Your task to perform on an android device: clear all cookies in the chrome app Image 0: 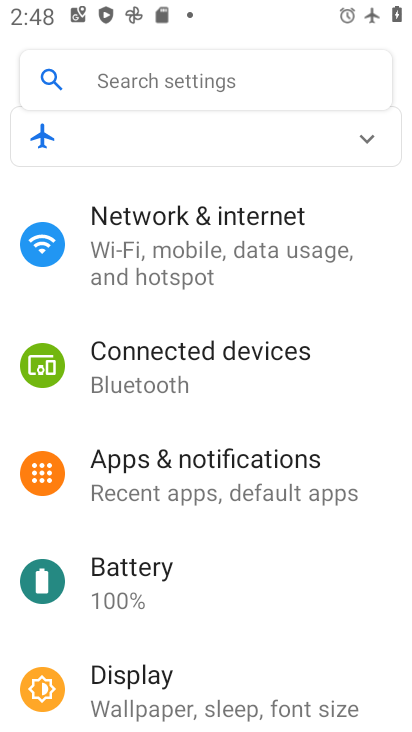
Step 0: drag from (277, 546) to (279, 317)
Your task to perform on an android device: clear all cookies in the chrome app Image 1: 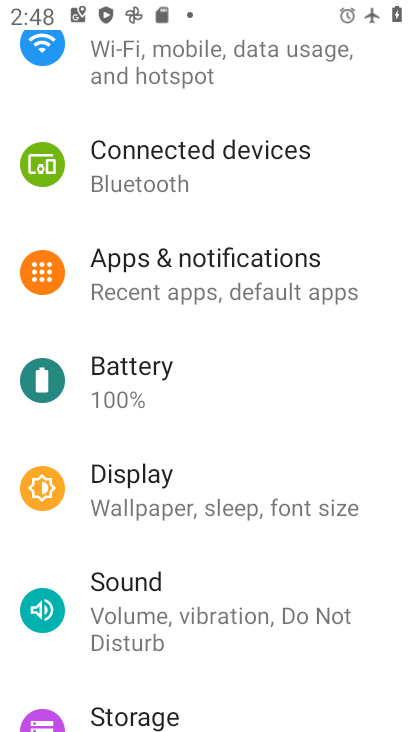
Step 1: drag from (184, 696) to (267, 353)
Your task to perform on an android device: clear all cookies in the chrome app Image 2: 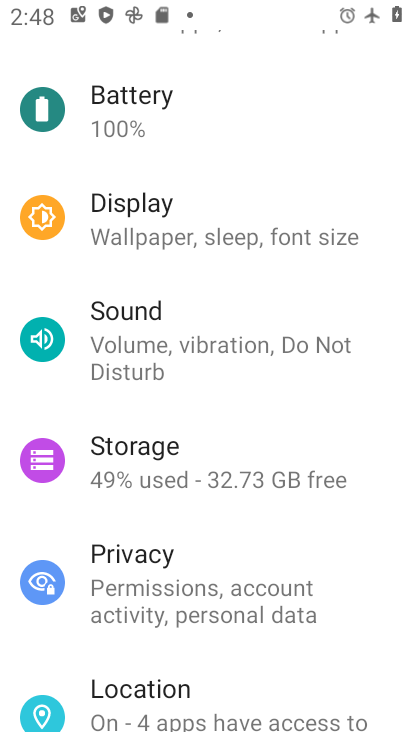
Step 2: drag from (188, 659) to (231, 400)
Your task to perform on an android device: clear all cookies in the chrome app Image 3: 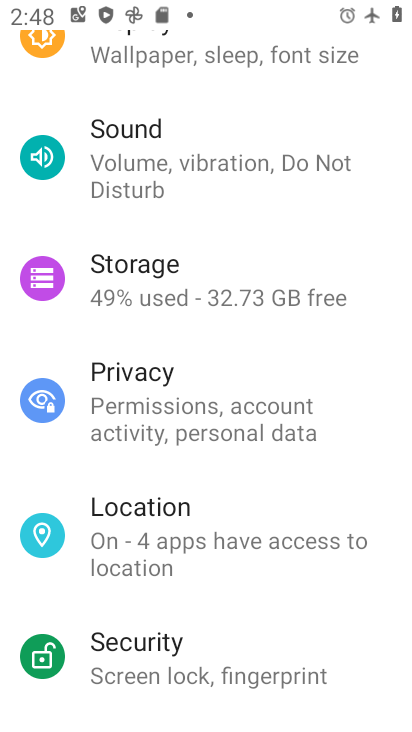
Step 3: press home button
Your task to perform on an android device: clear all cookies in the chrome app Image 4: 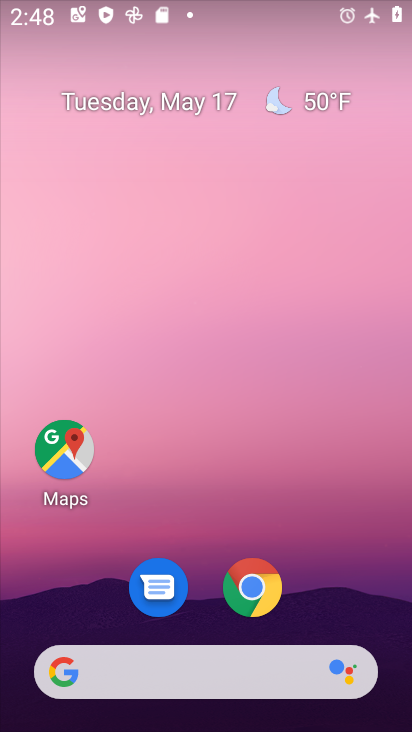
Step 4: click (232, 604)
Your task to perform on an android device: clear all cookies in the chrome app Image 5: 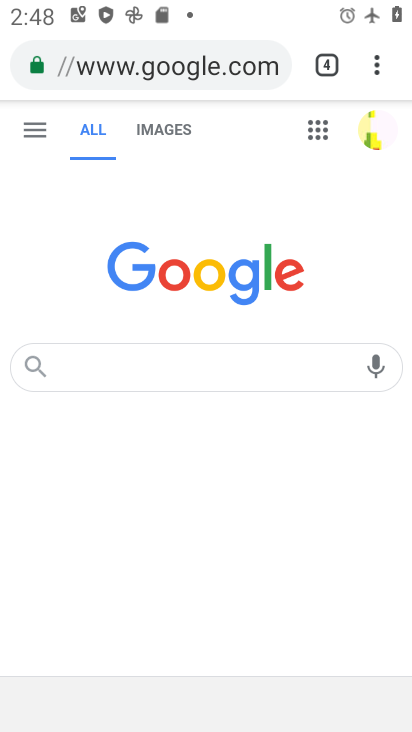
Step 5: click (391, 82)
Your task to perform on an android device: clear all cookies in the chrome app Image 6: 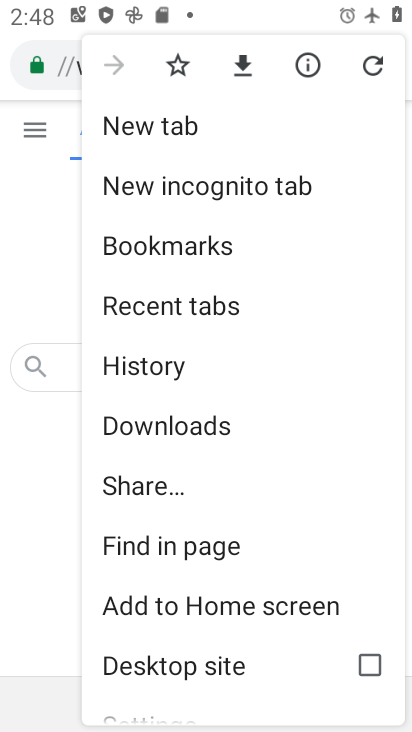
Step 6: drag from (177, 547) to (245, 275)
Your task to perform on an android device: clear all cookies in the chrome app Image 7: 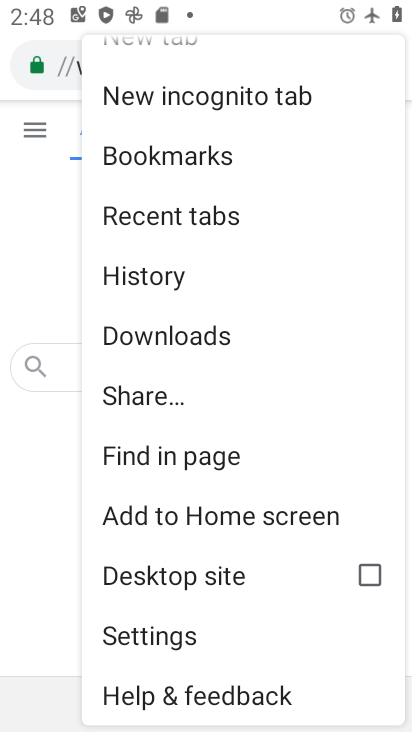
Step 7: drag from (170, 647) to (196, 395)
Your task to perform on an android device: clear all cookies in the chrome app Image 8: 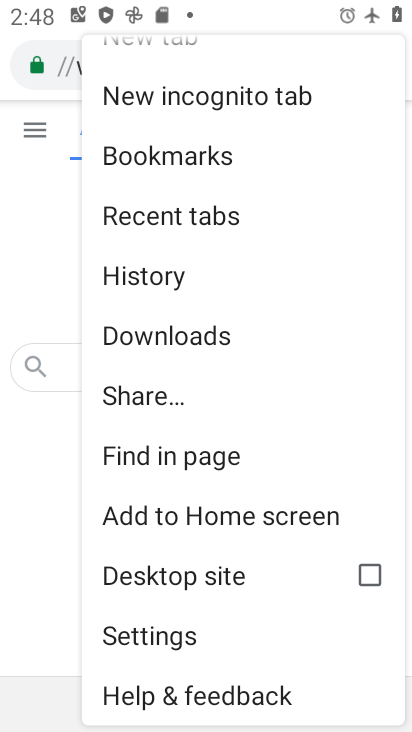
Step 8: click (196, 265)
Your task to perform on an android device: clear all cookies in the chrome app Image 9: 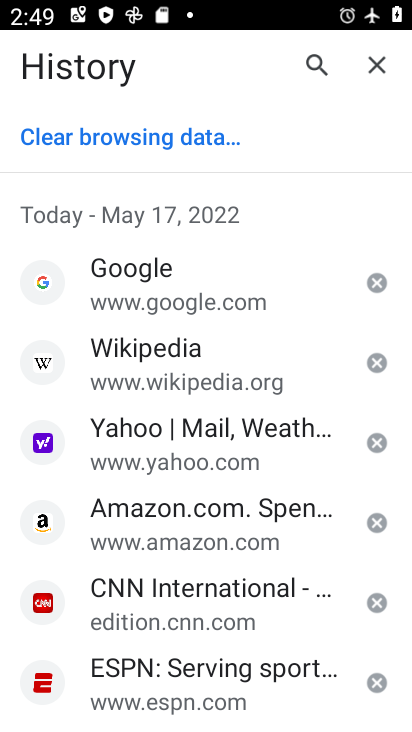
Step 9: click (160, 430)
Your task to perform on an android device: clear all cookies in the chrome app Image 10: 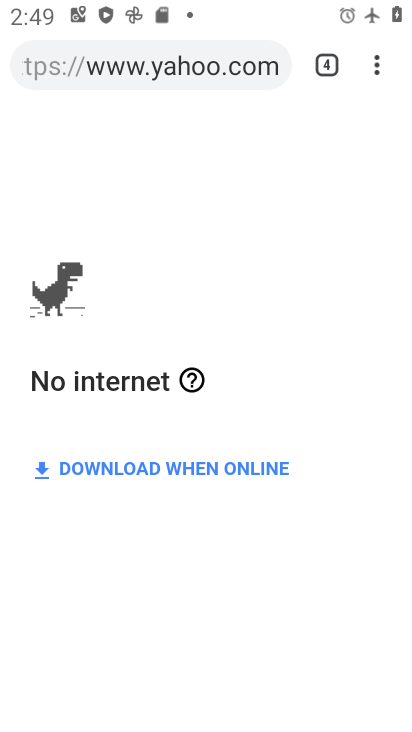
Step 10: press back button
Your task to perform on an android device: clear all cookies in the chrome app Image 11: 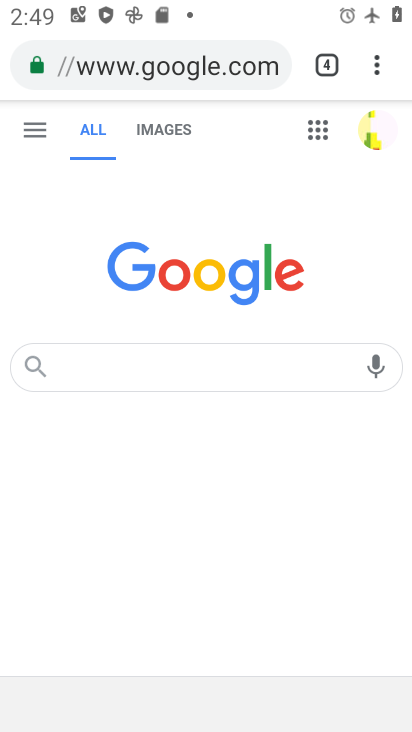
Step 11: click (388, 62)
Your task to perform on an android device: clear all cookies in the chrome app Image 12: 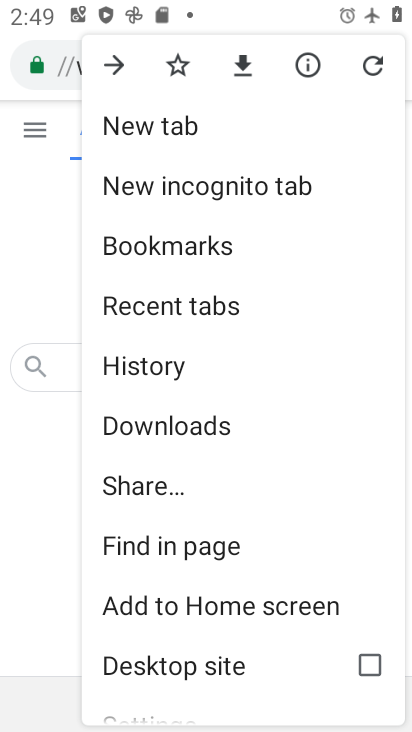
Step 12: click (191, 380)
Your task to perform on an android device: clear all cookies in the chrome app Image 13: 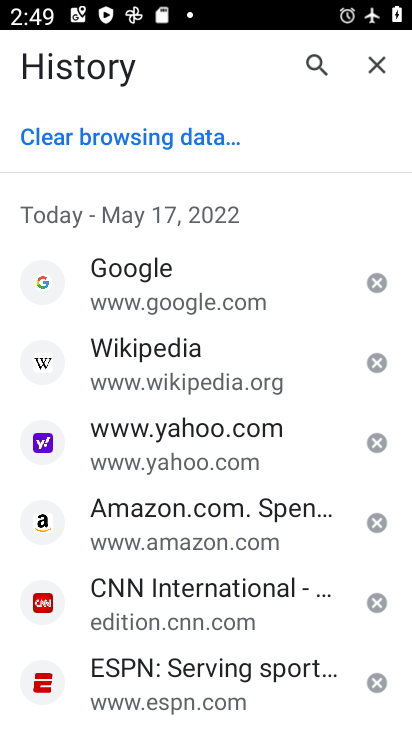
Step 13: click (203, 132)
Your task to perform on an android device: clear all cookies in the chrome app Image 14: 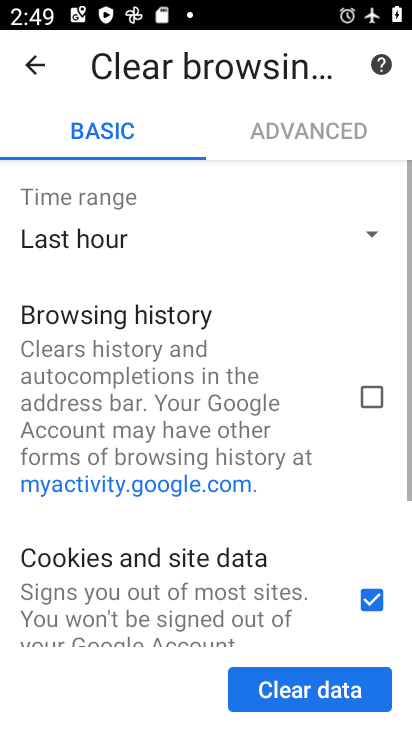
Step 14: click (316, 684)
Your task to perform on an android device: clear all cookies in the chrome app Image 15: 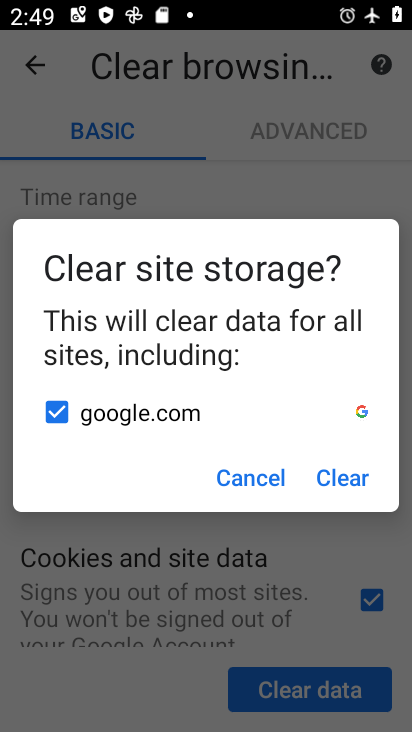
Step 15: click (340, 484)
Your task to perform on an android device: clear all cookies in the chrome app Image 16: 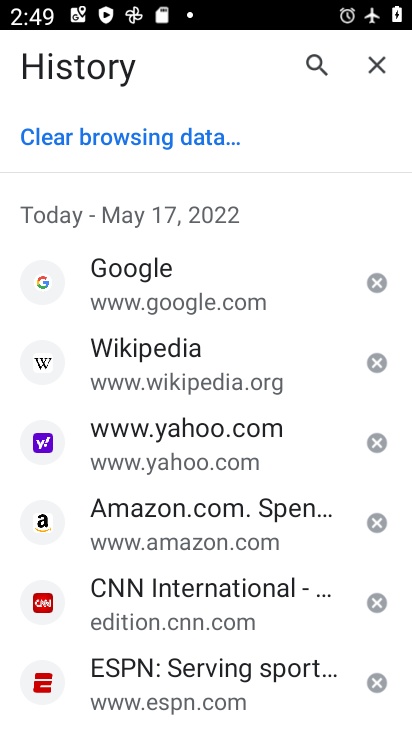
Step 16: task complete